Your task to perform on an android device: Do I have any events today? Image 0: 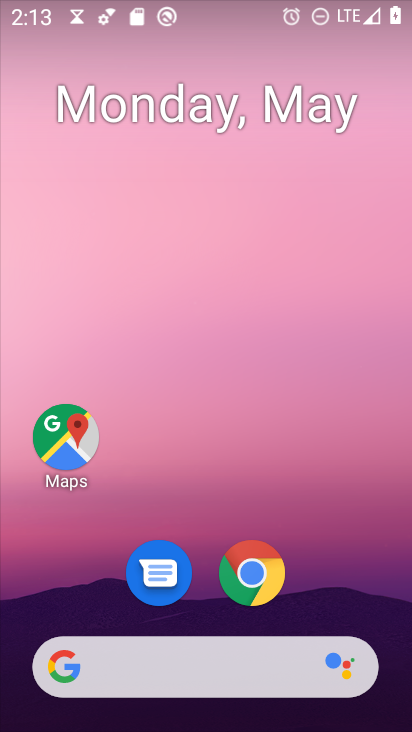
Step 0: drag from (109, 626) to (44, 0)
Your task to perform on an android device: Do I have any events today? Image 1: 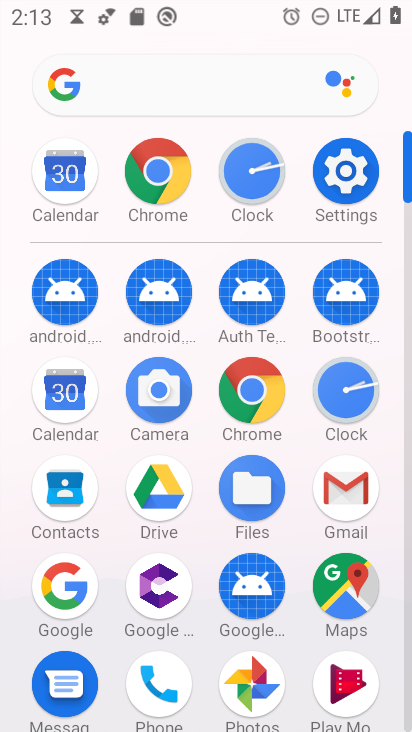
Step 1: click (77, 396)
Your task to perform on an android device: Do I have any events today? Image 2: 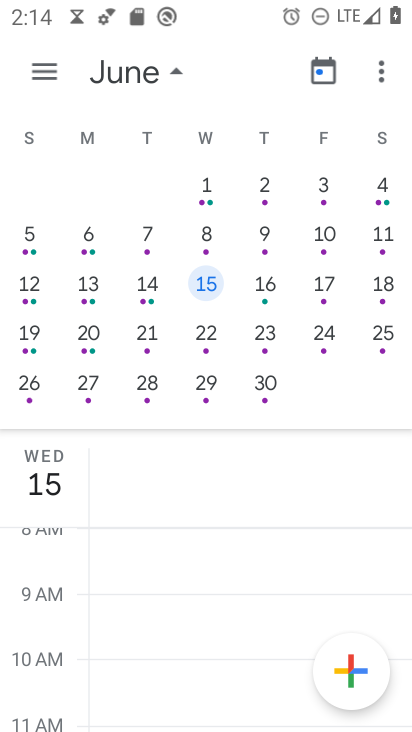
Step 2: drag from (65, 226) to (409, 446)
Your task to perform on an android device: Do I have any events today? Image 3: 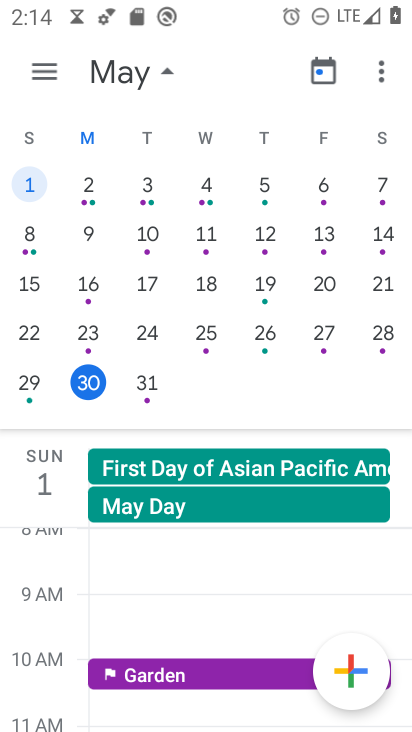
Step 3: click (84, 389)
Your task to perform on an android device: Do I have any events today? Image 4: 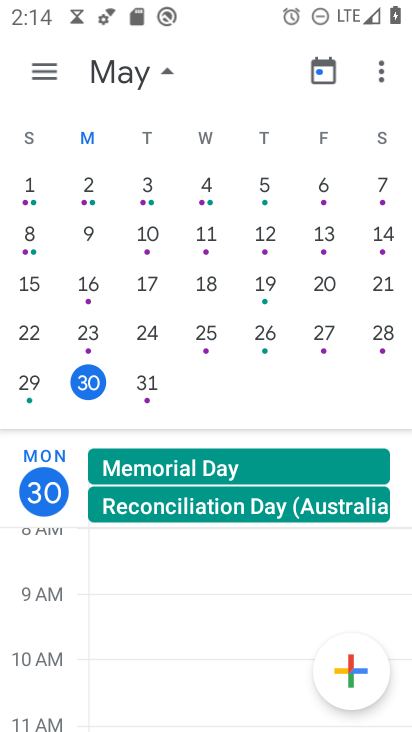
Step 4: task complete